Your task to perform on an android device: turn on improve location accuracy Image 0: 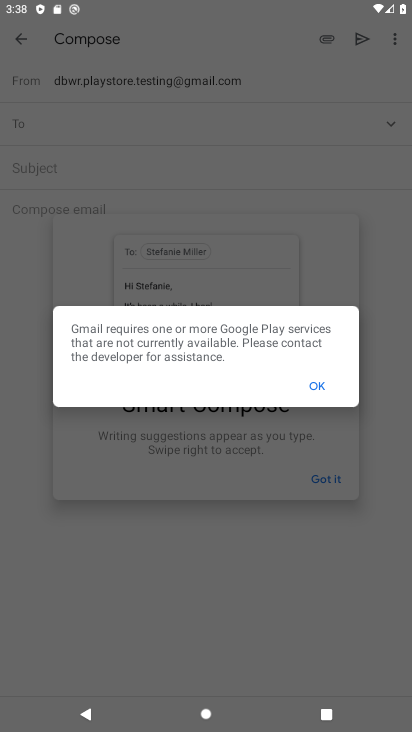
Step 0: press home button
Your task to perform on an android device: turn on improve location accuracy Image 1: 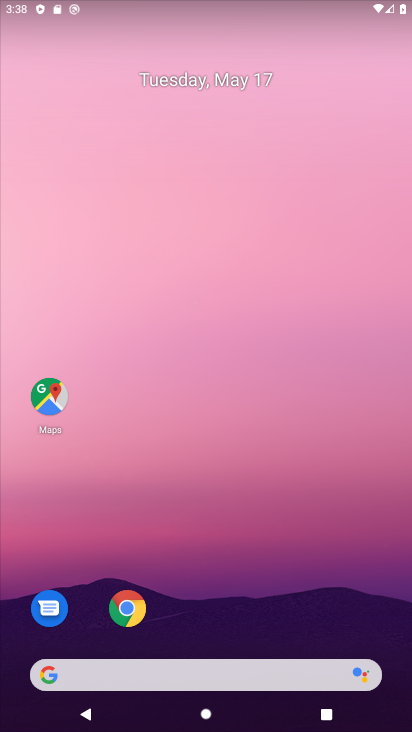
Step 1: drag from (154, 647) to (205, 231)
Your task to perform on an android device: turn on improve location accuracy Image 2: 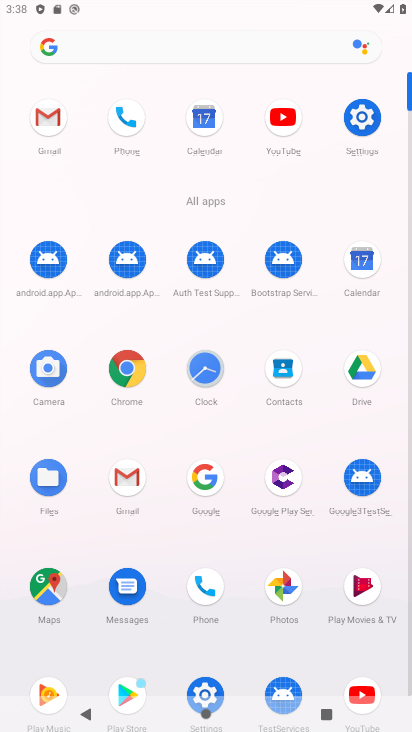
Step 2: click (363, 119)
Your task to perform on an android device: turn on improve location accuracy Image 3: 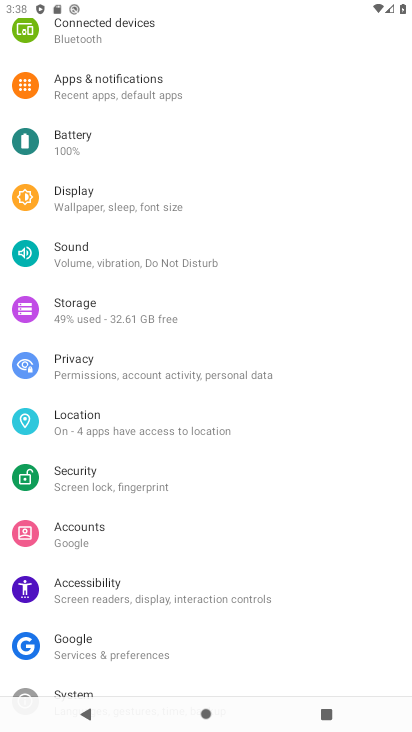
Step 3: click (75, 416)
Your task to perform on an android device: turn on improve location accuracy Image 4: 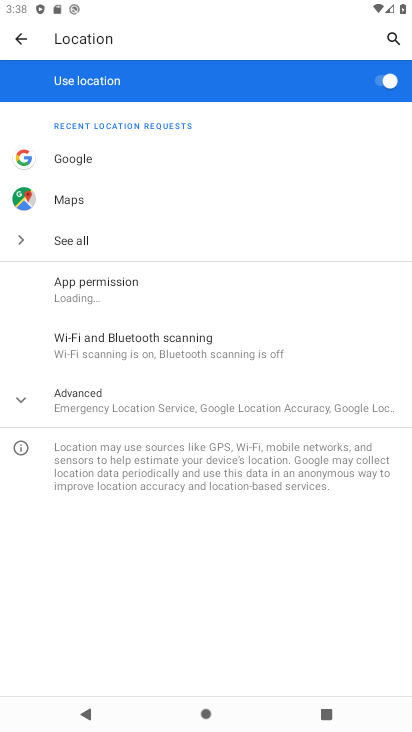
Step 4: click (66, 399)
Your task to perform on an android device: turn on improve location accuracy Image 5: 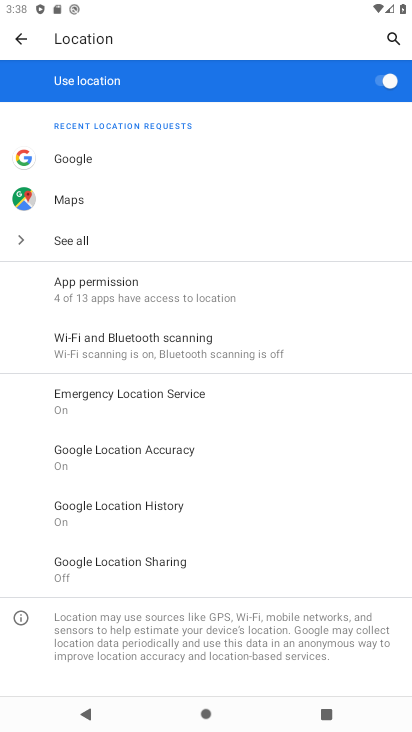
Step 5: click (54, 453)
Your task to perform on an android device: turn on improve location accuracy Image 6: 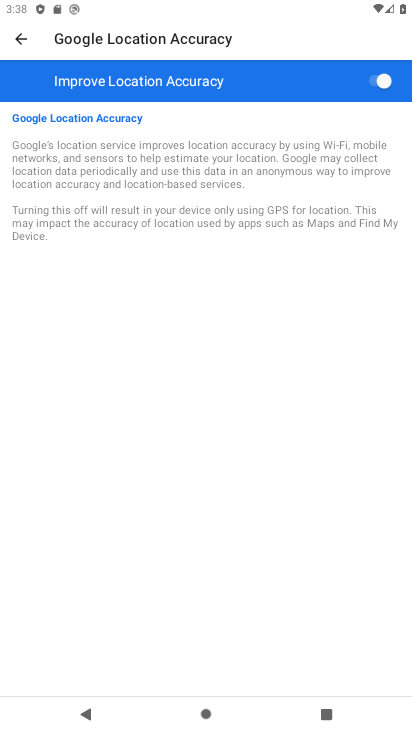
Step 6: task complete